Your task to perform on an android device: Search for the best rated drill on Lowes.com Image 0: 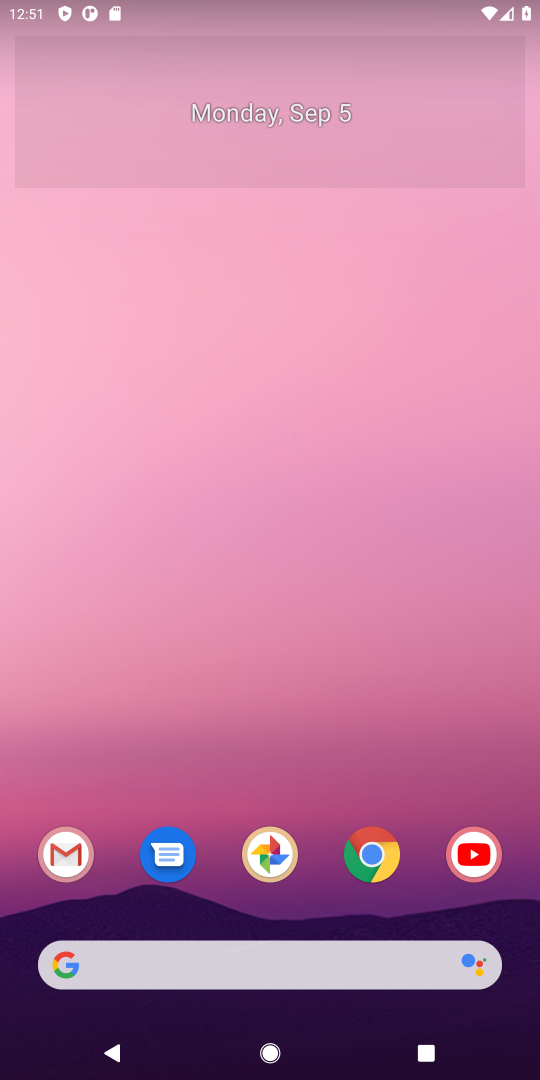
Step 0: press home button
Your task to perform on an android device: Search for the best rated drill on Lowes.com Image 1: 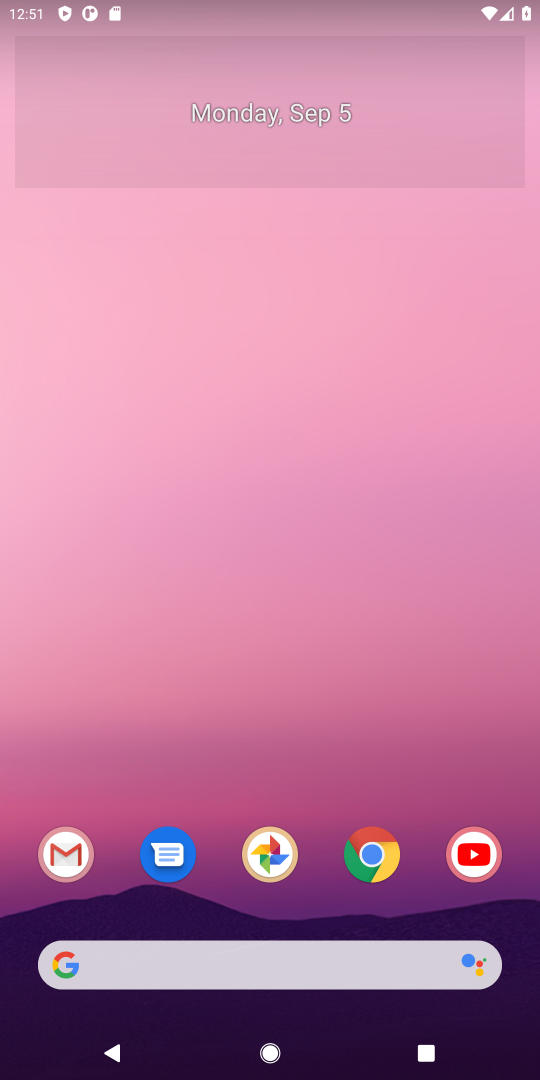
Step 1: click (381, 853)
Your task to perform on an android device: Search for the best rated drill on Lowes.com Image 2: 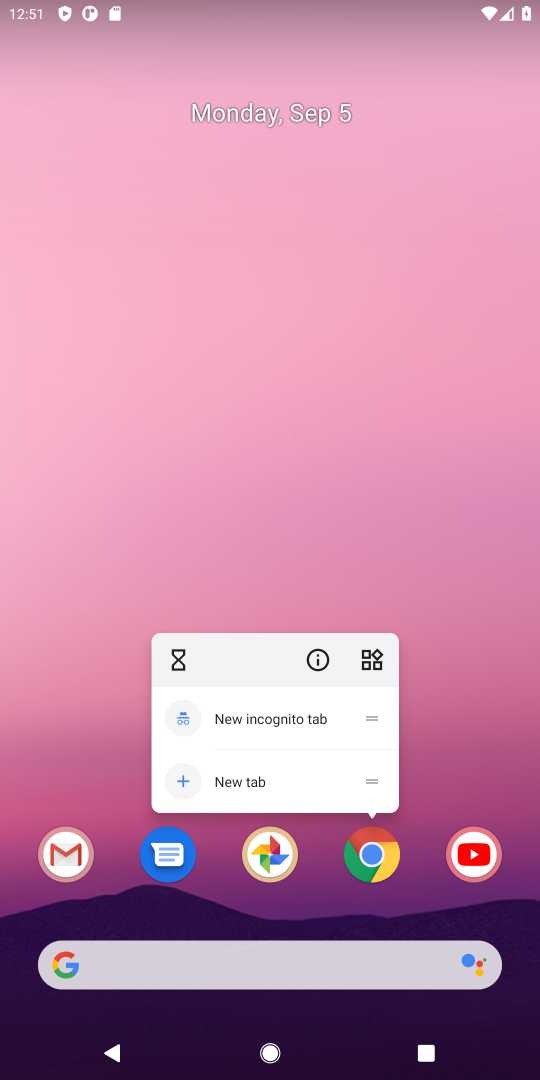
Step 2: click (375, 853)
Your task to perform on an android device: Search for the best rated drill on Lowes.com Image 3: 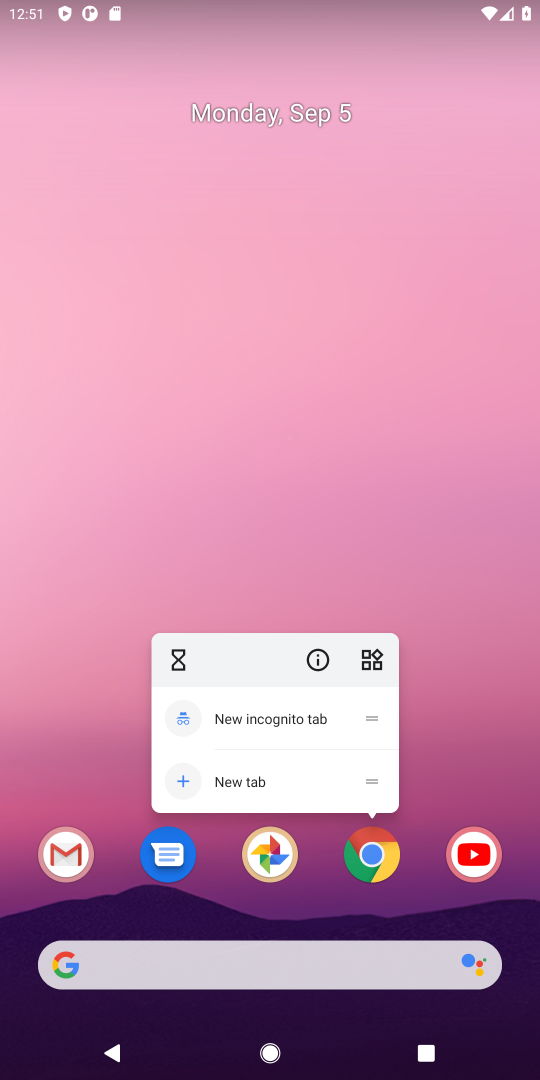
Step 3: click (369, 851)
Your task to perform on an android device: Search for the best rated drill on Lowes.com Image 4: 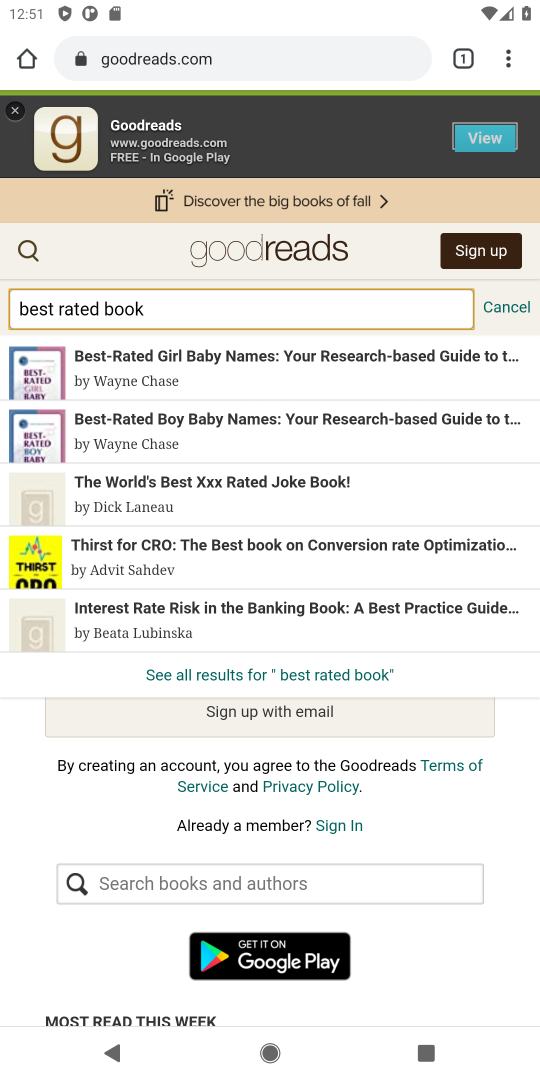
Step 4: click (334, 66)
Your task to perform on an android device: Search for the best rated drill on Lowes.com Image 5: 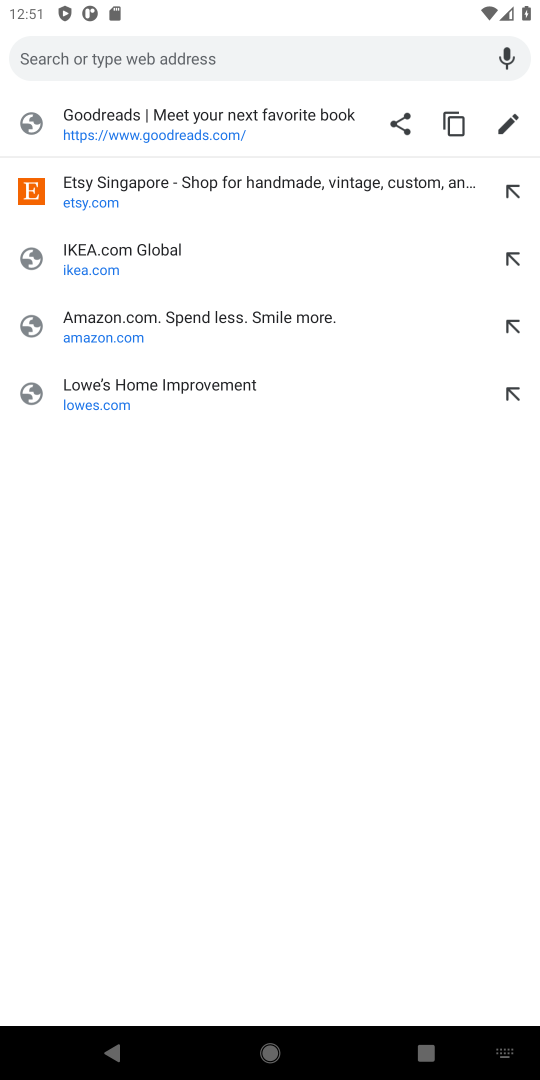
Step 5: click (175, 54)
Your task to perform on an android device: Search for the best rated drill on Lowes.com Image 6: 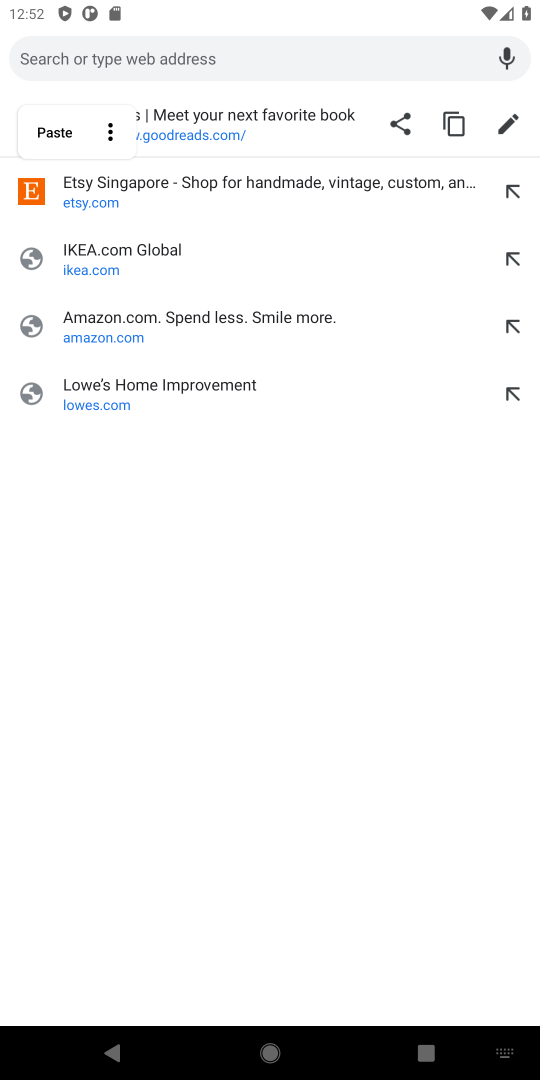
Step 6: type "Lowes.com"
Your task to perform on an android device: Search for the best rated drill on Lowes.com Image 7: 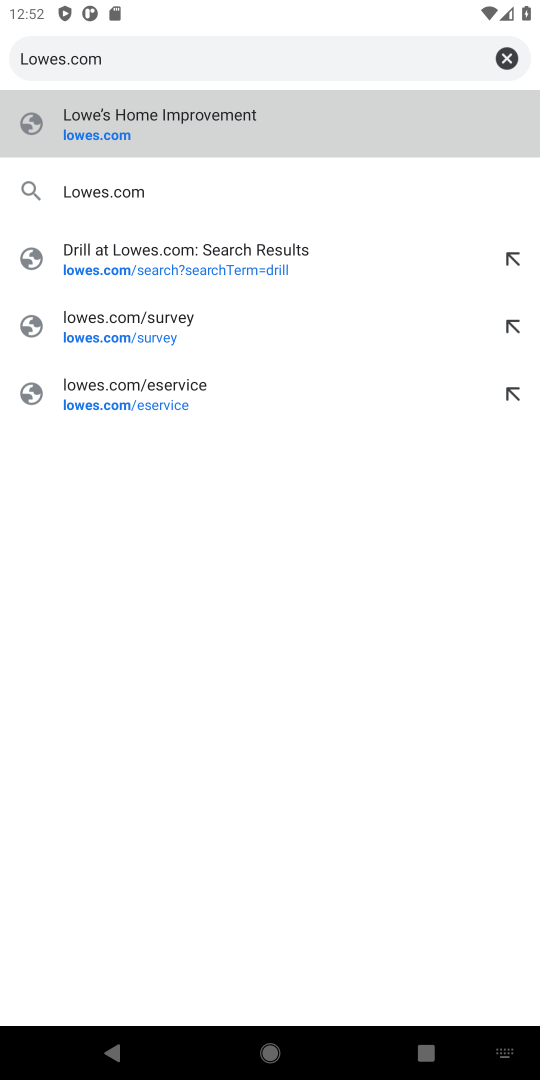
Step 7: press enter
Your task to perform on an android device: Search for the best rated drill on Lowes.com Image 8: 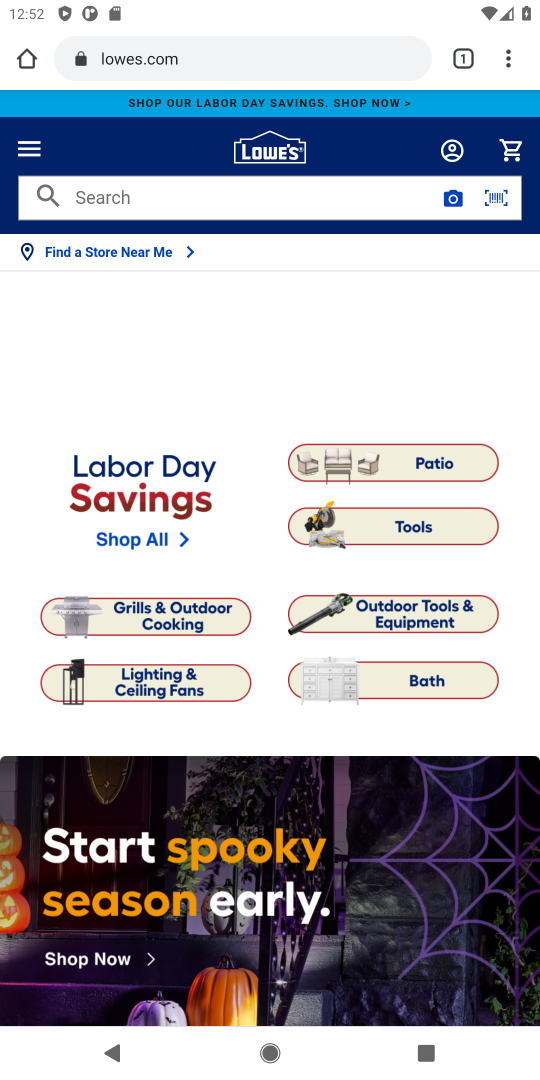
Step 8: click (323, 188)
Your task to perform on an android device: Search for the best rated drill on Lowes.com Image 9: 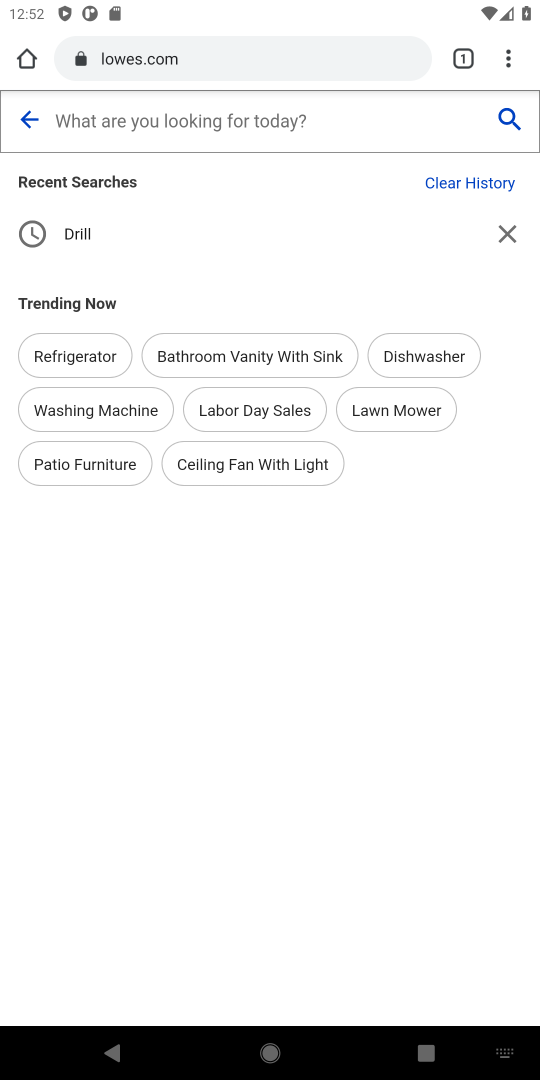
Step 9: type "best rated drill"
Your task to perform on an android device: Search for the best rated drill on Lowes.com Image 10: 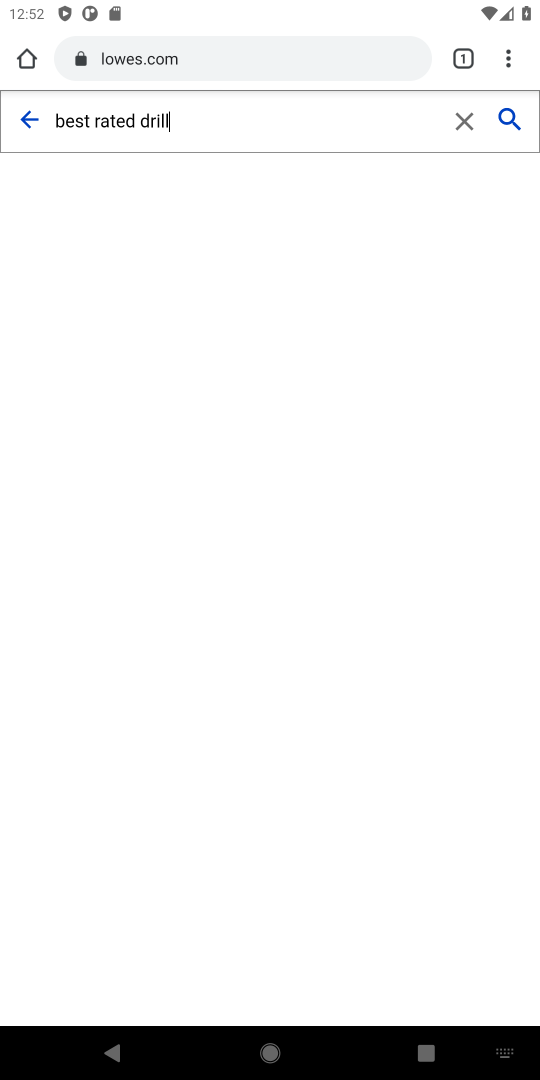
Step 10: press enter
Your task to perform on an android device: Search for the best rated drill on Lowes.com Image 11: 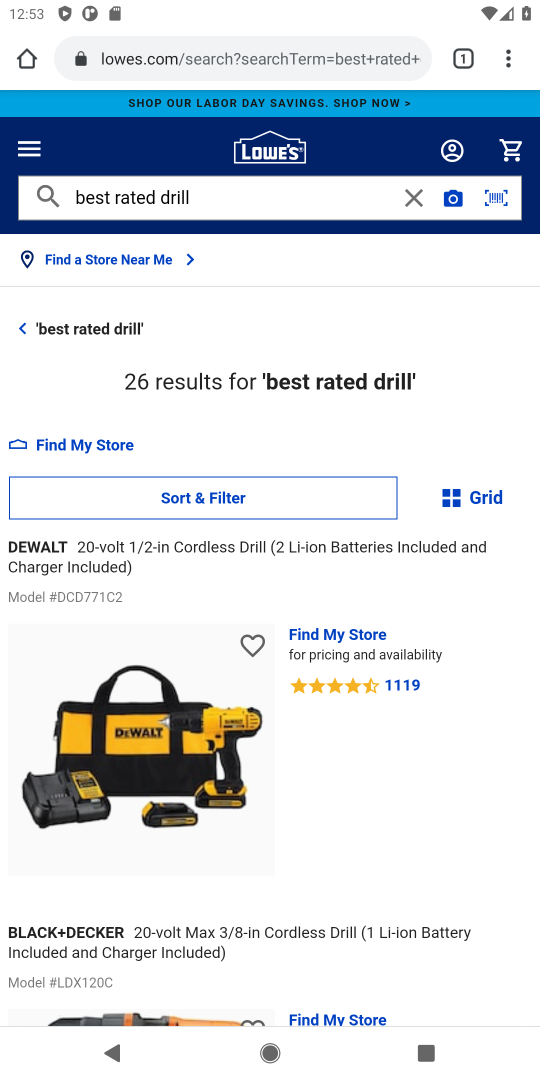
Step 11: task complete